Your task to perform on an android device: open wifi settings Image 0: 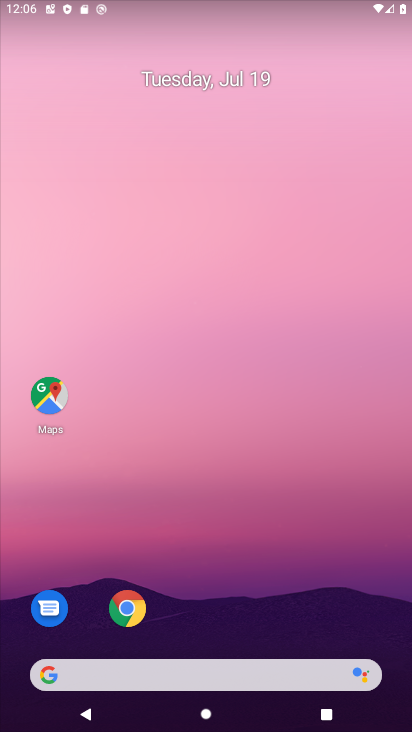
Step 0: drag from (286, 642) to (291, 121)
Your task to perform on an android device: open wifi settings Image 1: 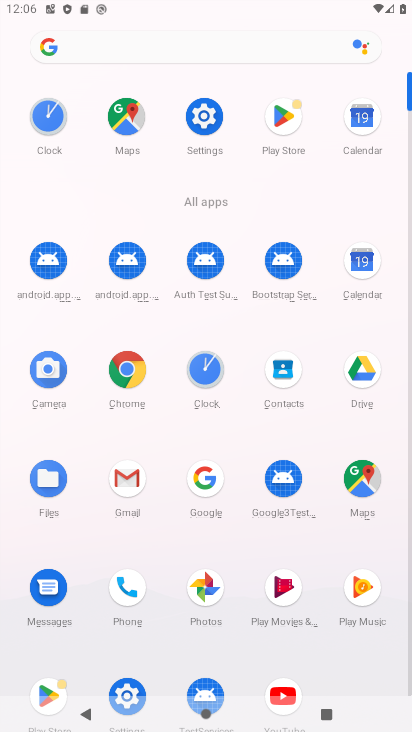
Step 1: click (128, 688)
Your task to perform on an android device: open wifi settings Image 2: 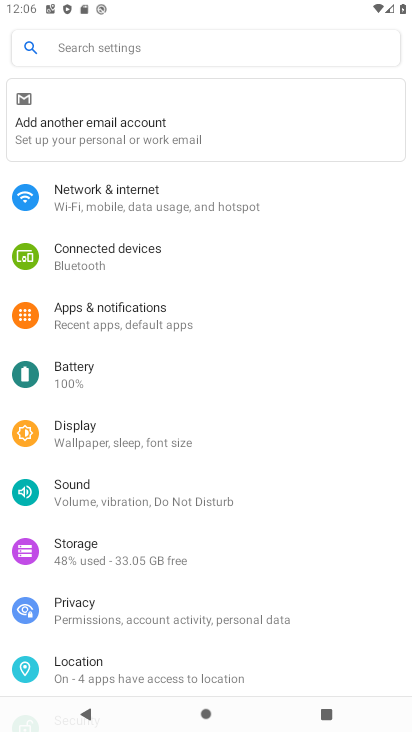
Step 2: click (163, 194)
Your task to perform on an android device: open wifi settings Image 3: 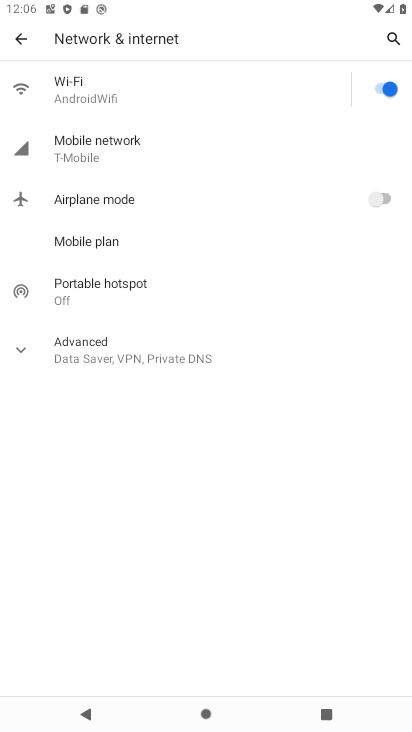
Step 3: click (137, 105)
Your task to perform on an android device: open wifi settings Image 4: 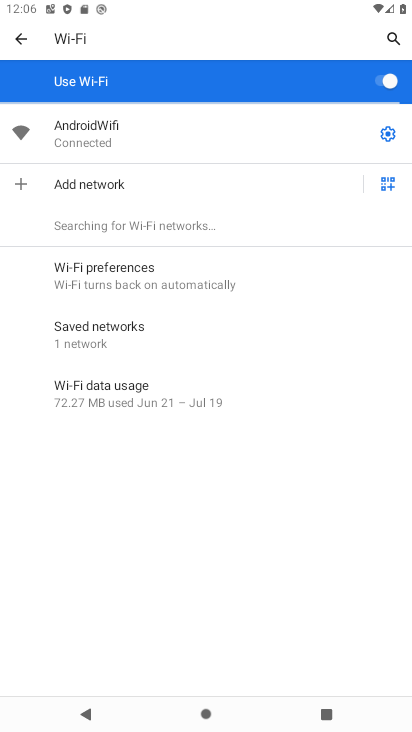
Step 4: task complete